Your task to perform on an android device: toggle airplane mode Image 0: 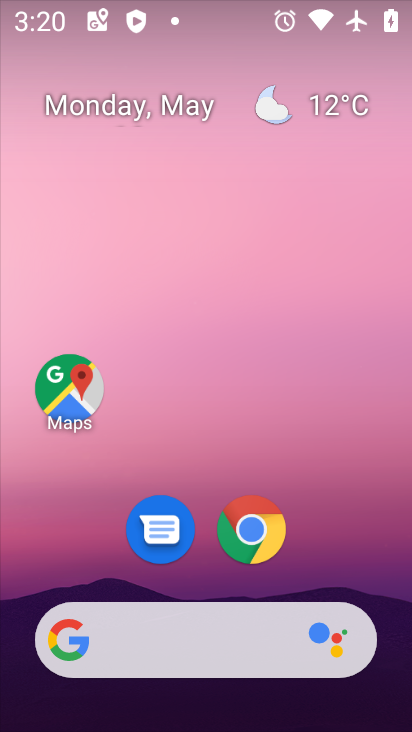
Step 0: drag from (317, 572) to (329, 24)
Your task to perform on an android device: toggle airplane mode Image 1: 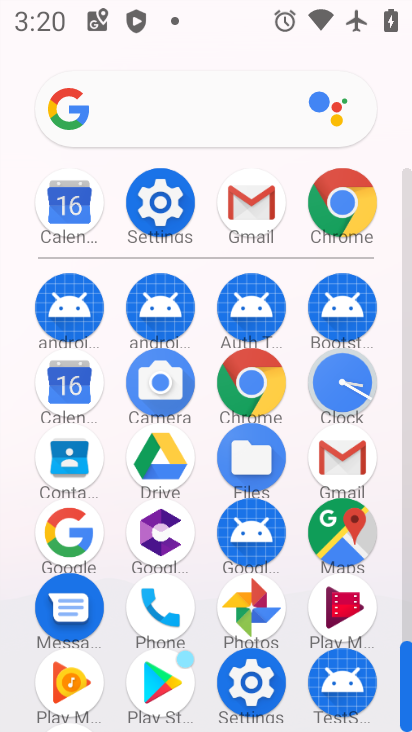
Step 1: click (153, 210)
Your task to perform on an android device: toggle airplane mode Image 2: 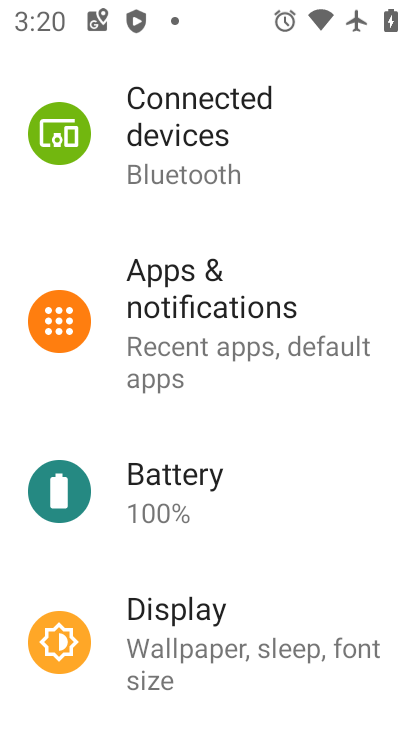
Step 2: drag from (219, 186) to (313, 413)
Your task to perform on an android device: toggle airplane mode Image 3: 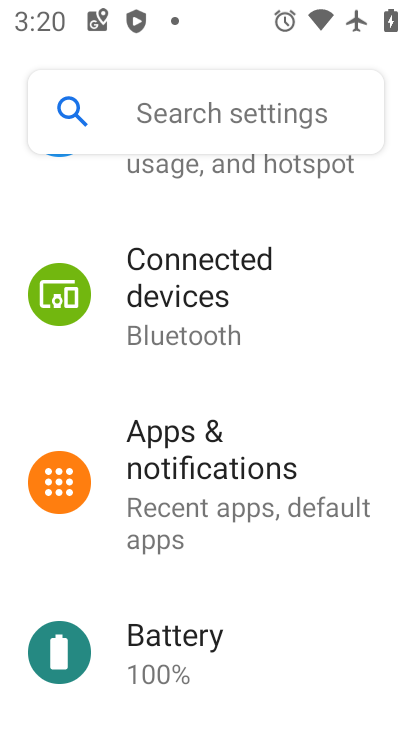
Step 3: drag from (295, 280) to (315, 442)
Your task to perform on an android device: toggle airplane mode Image 4: 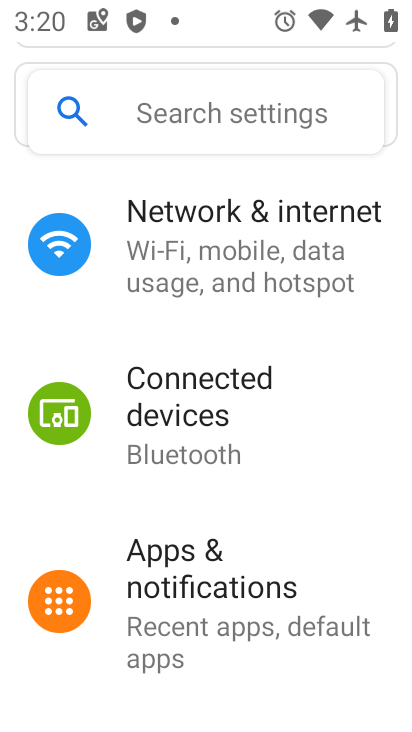
Step 4: click (268, 278)
Your task to perform on an android device: toggle airplane mode Image 5: 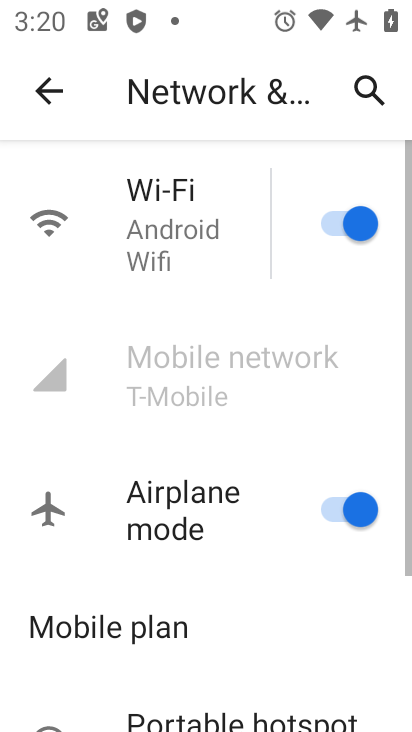
Step 5: click (316, 501)
Your task to perform on an android device: toggle airplane mode Image 6: 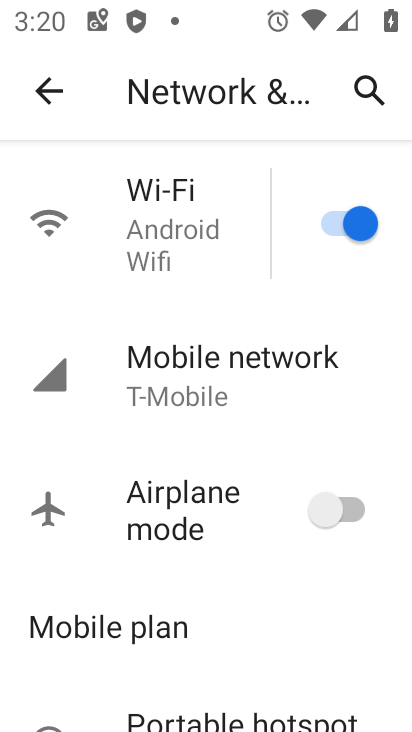
Step 6: task complete